Your task to perform on an android device: set the stopwatch Image 0: 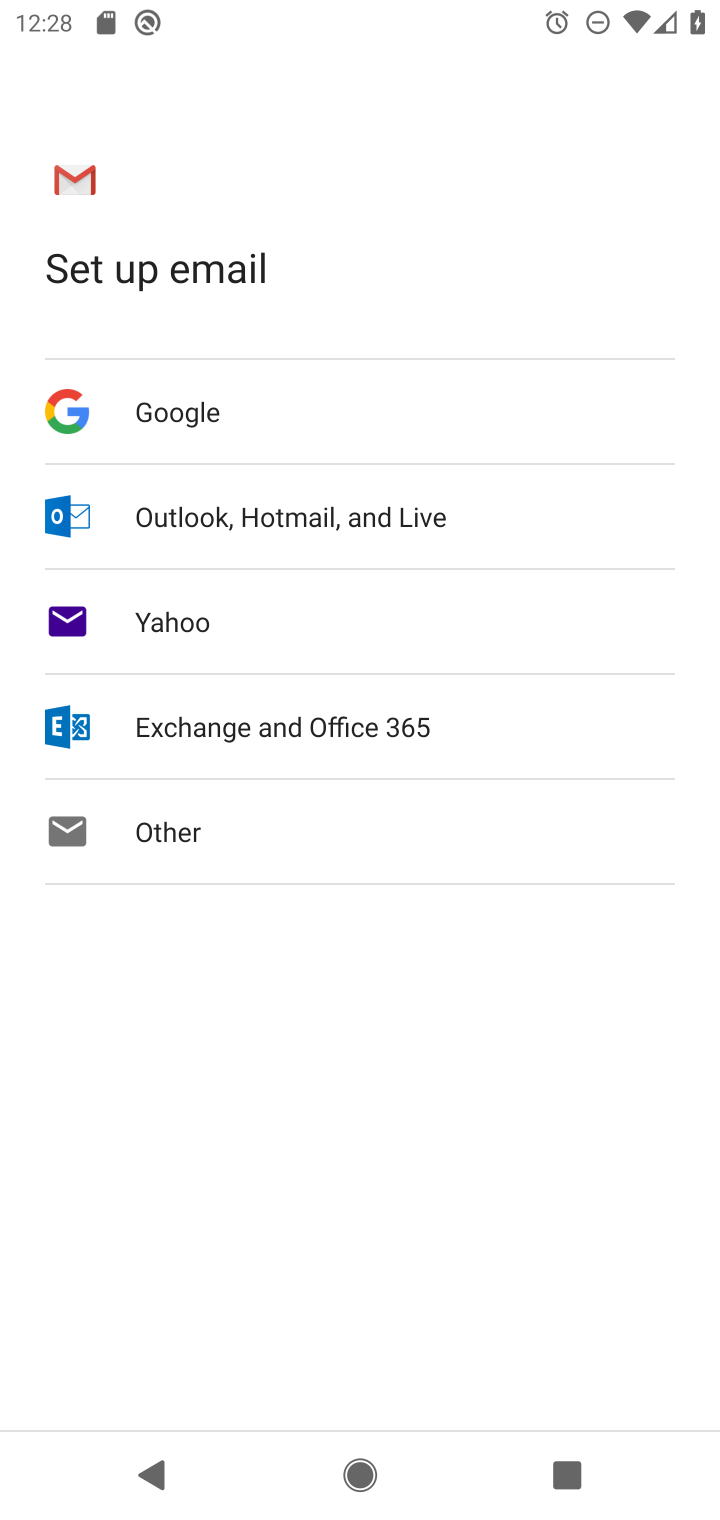
Step 0: press home button
Your task to perform on an android device: set the stopwatch Image 1: 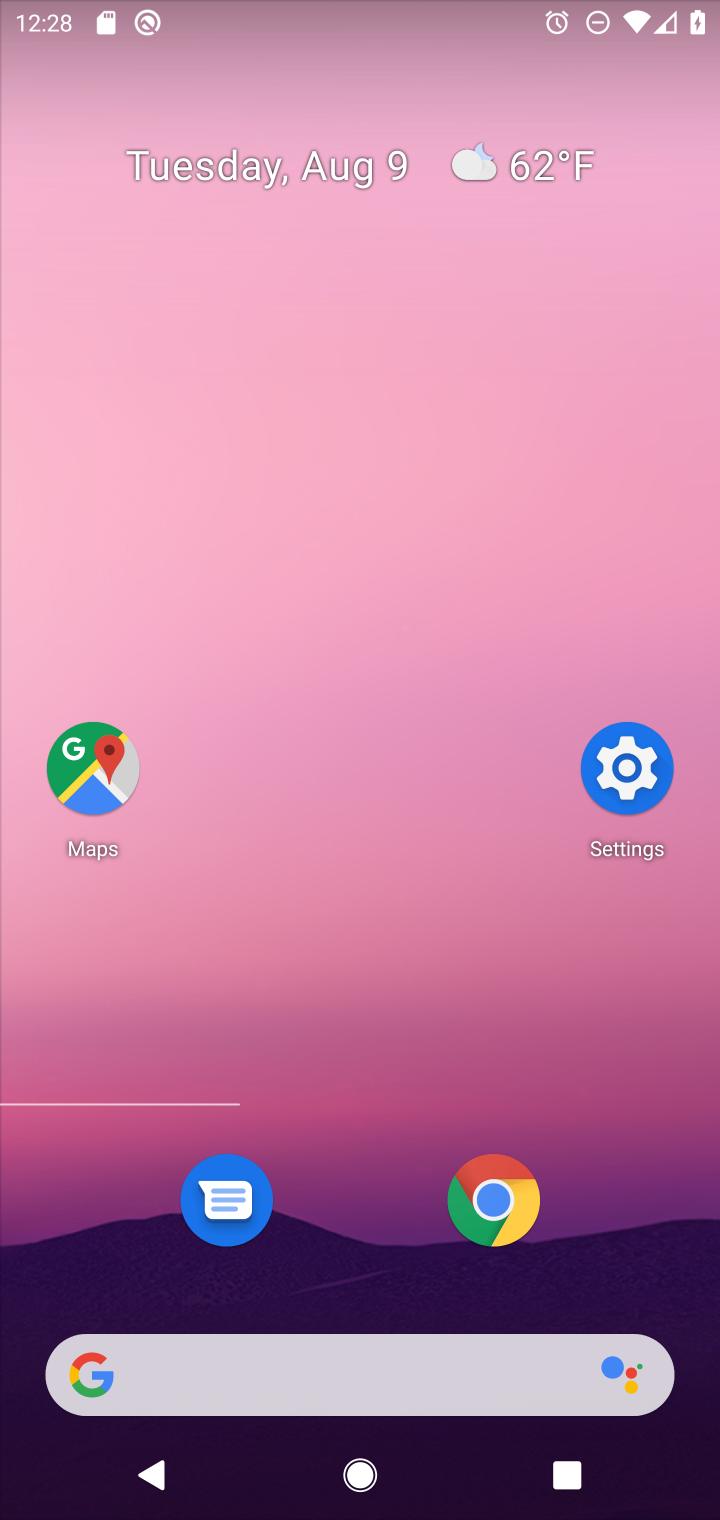
Step 1: drag from (299, 1149) to (521, 212)
Your task to perform on an android device: set the stopwatch Image 2: 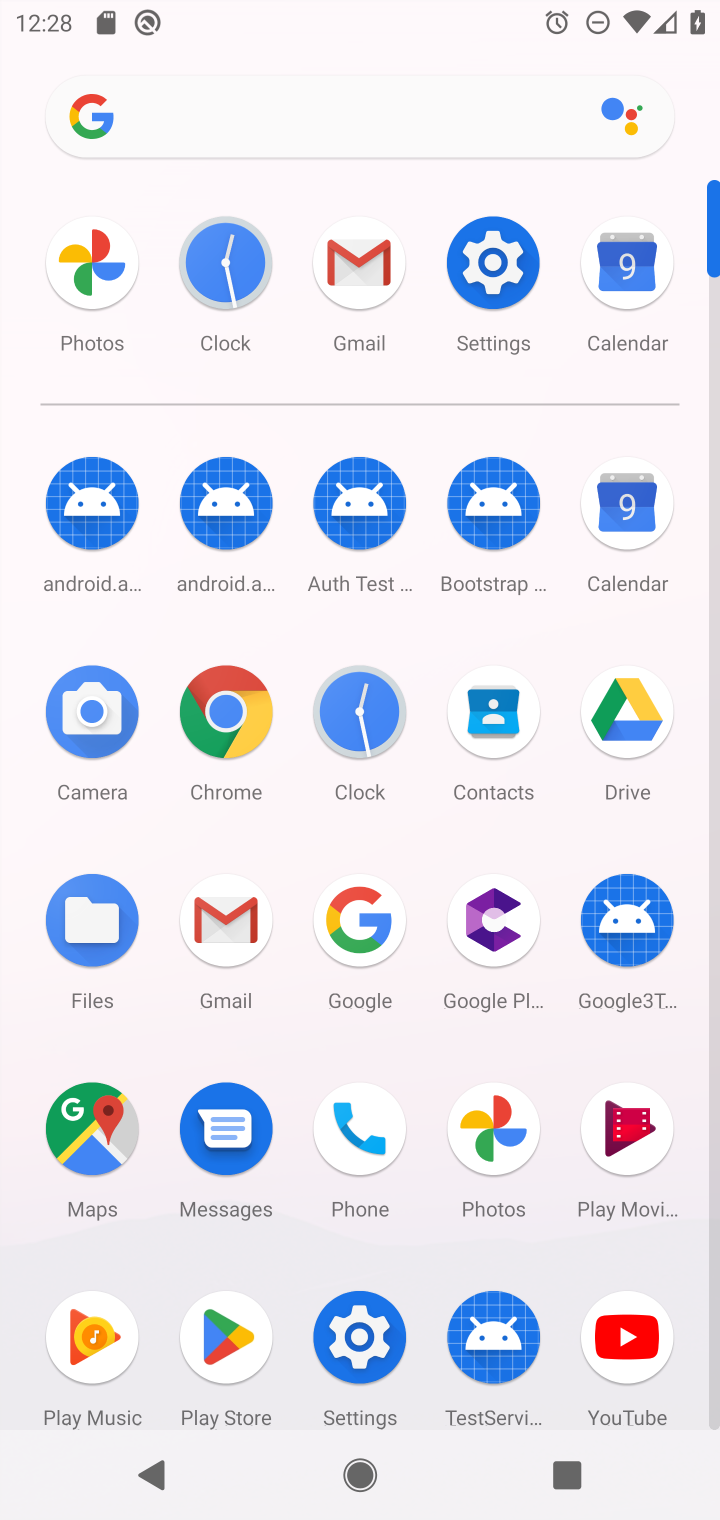
Step 2: click (210, 281)
Your task to perform on an android device: set the stopwatch Image 3: 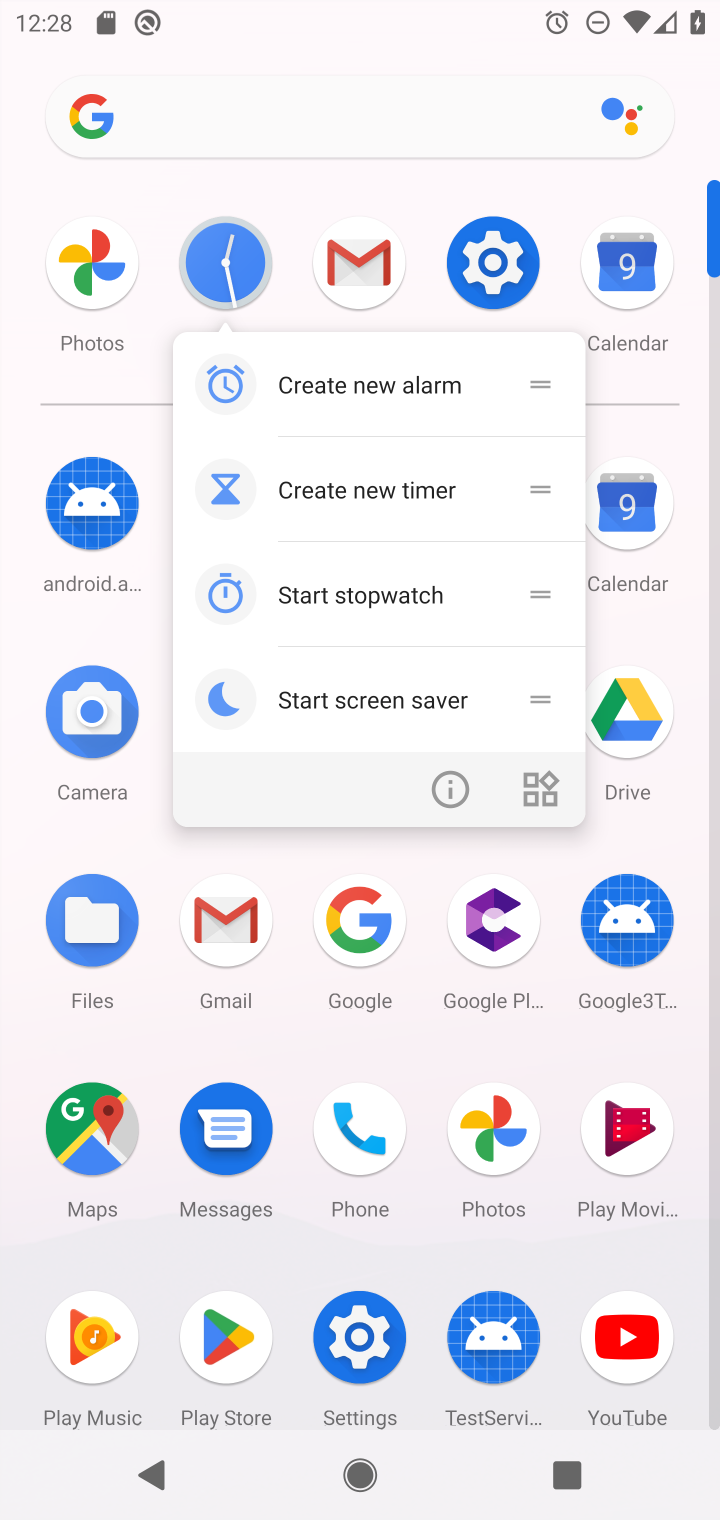
Step 3: click (232, 255)
Your task to perform on an android device: set the stopwatch Image 4: 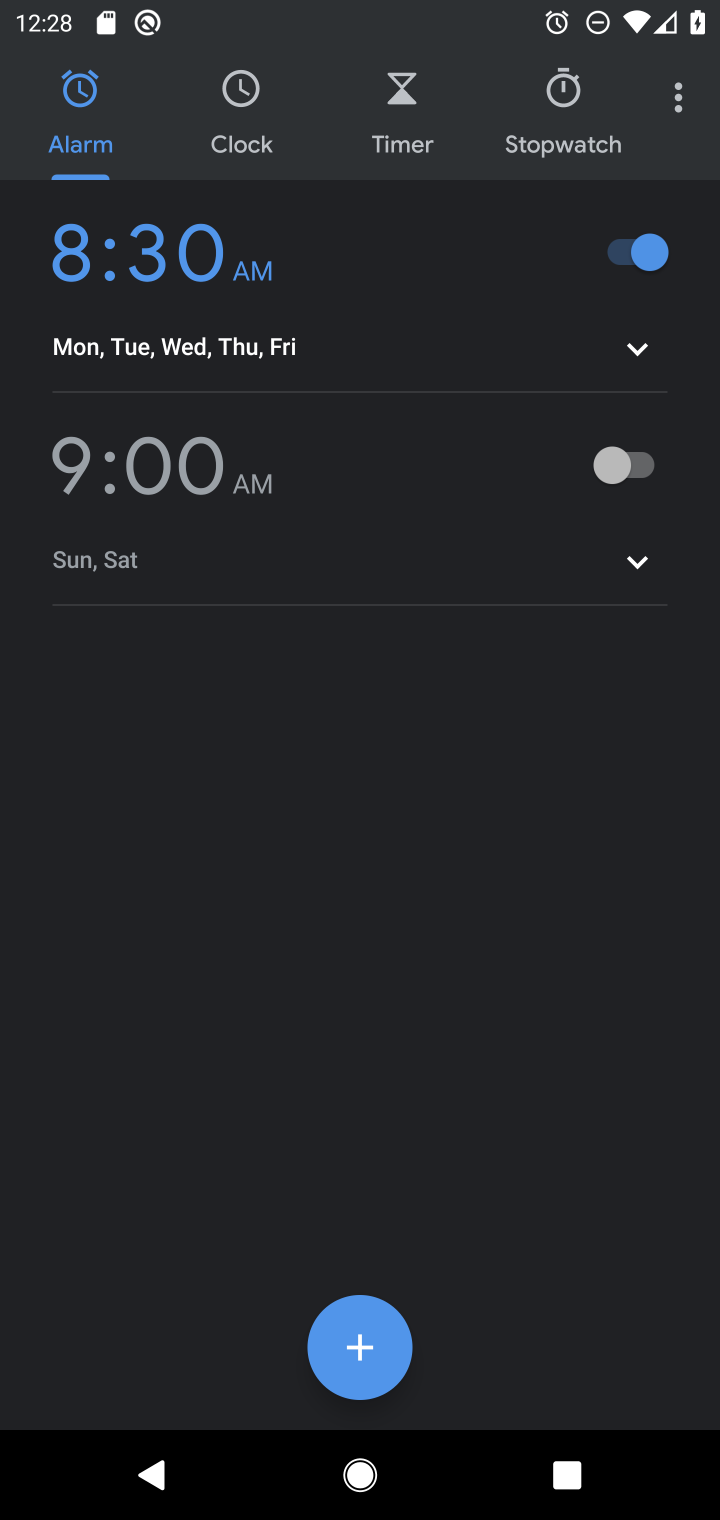
Step 4: click (559, 136)
Your task to perform on an android device: set the stopwatch Image 5: 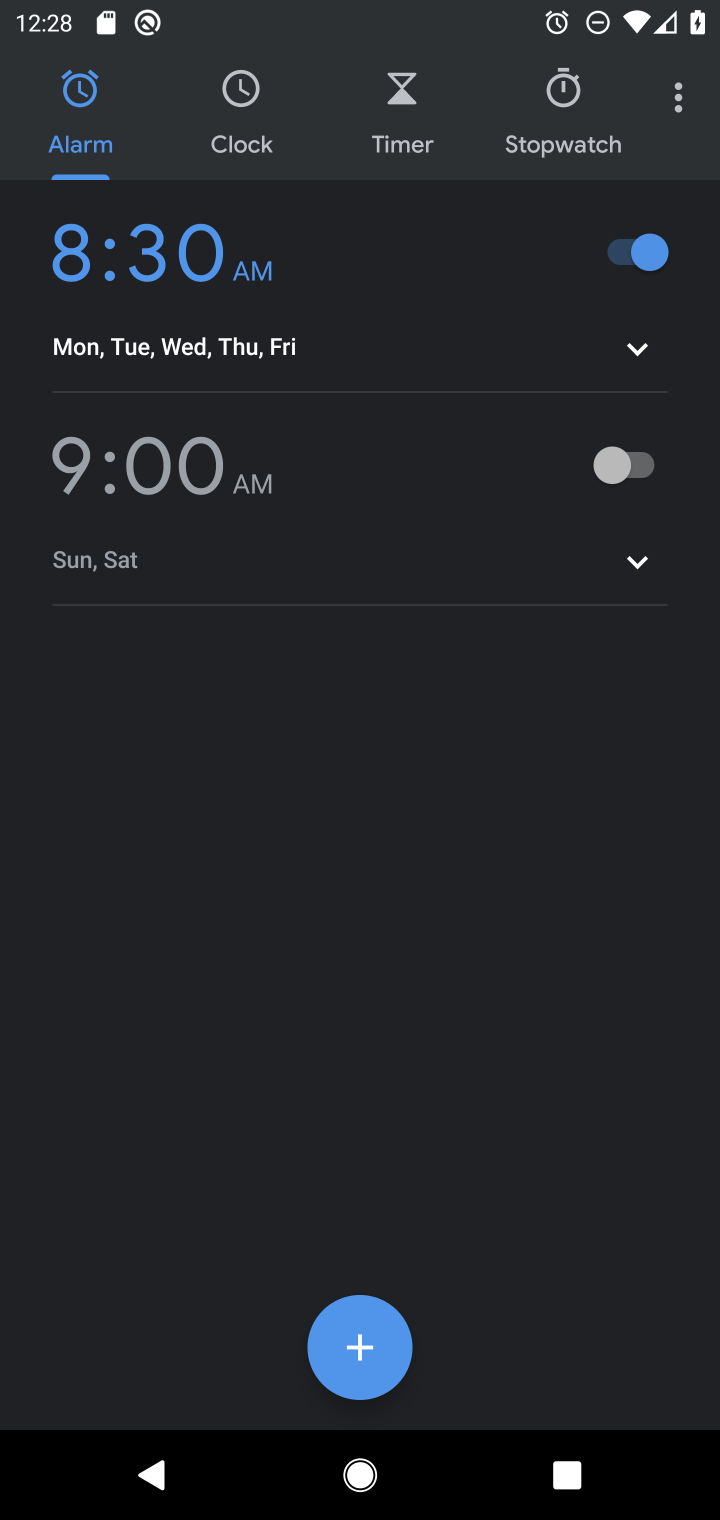
Step 5: click (570, 149)
Your task to perform on an android device: set the stopwatch Image 6: 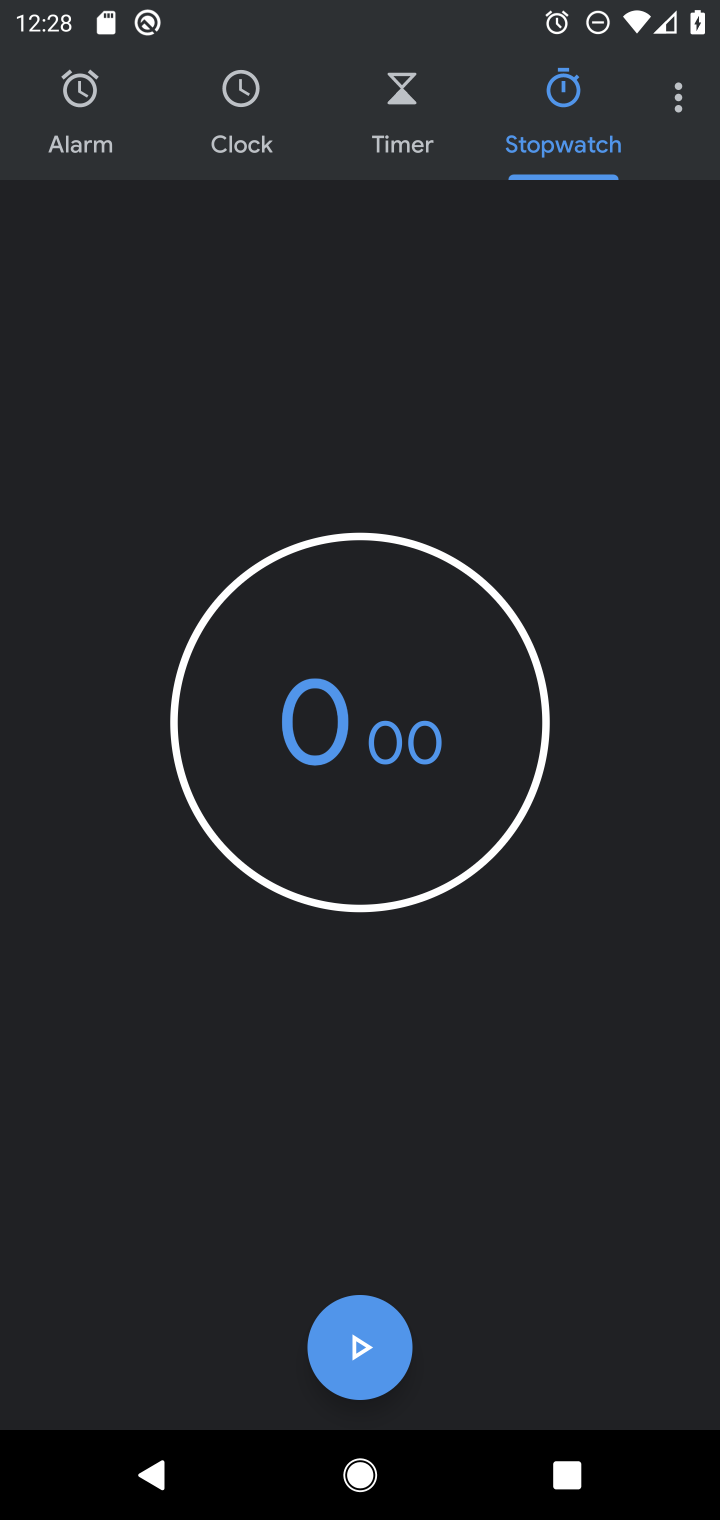
Step 6: click (346, 771)
Your task to perform on an android device: set the stopwatch Image 7: 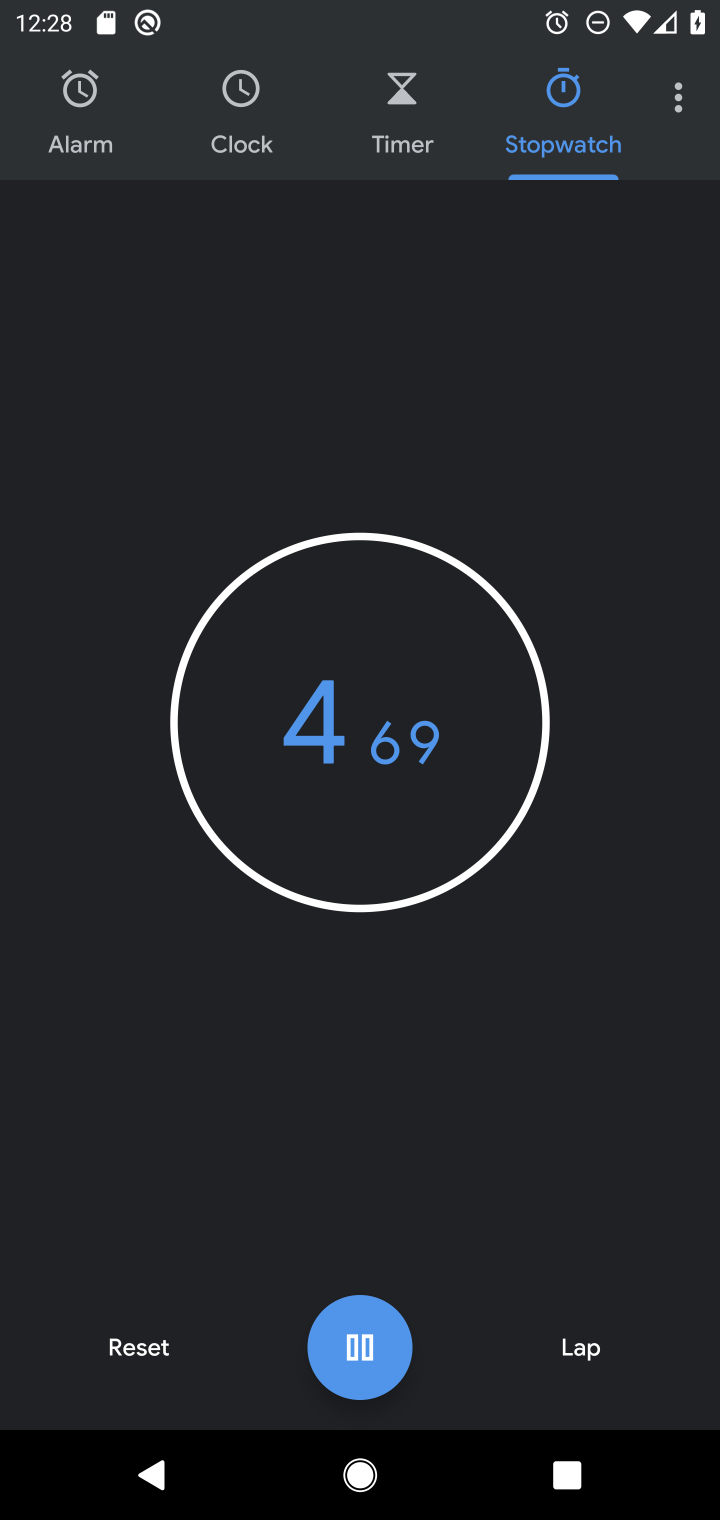
Step 7: click (369, 729)
Your task to perform on an android device: set the stopwatch Image 8: 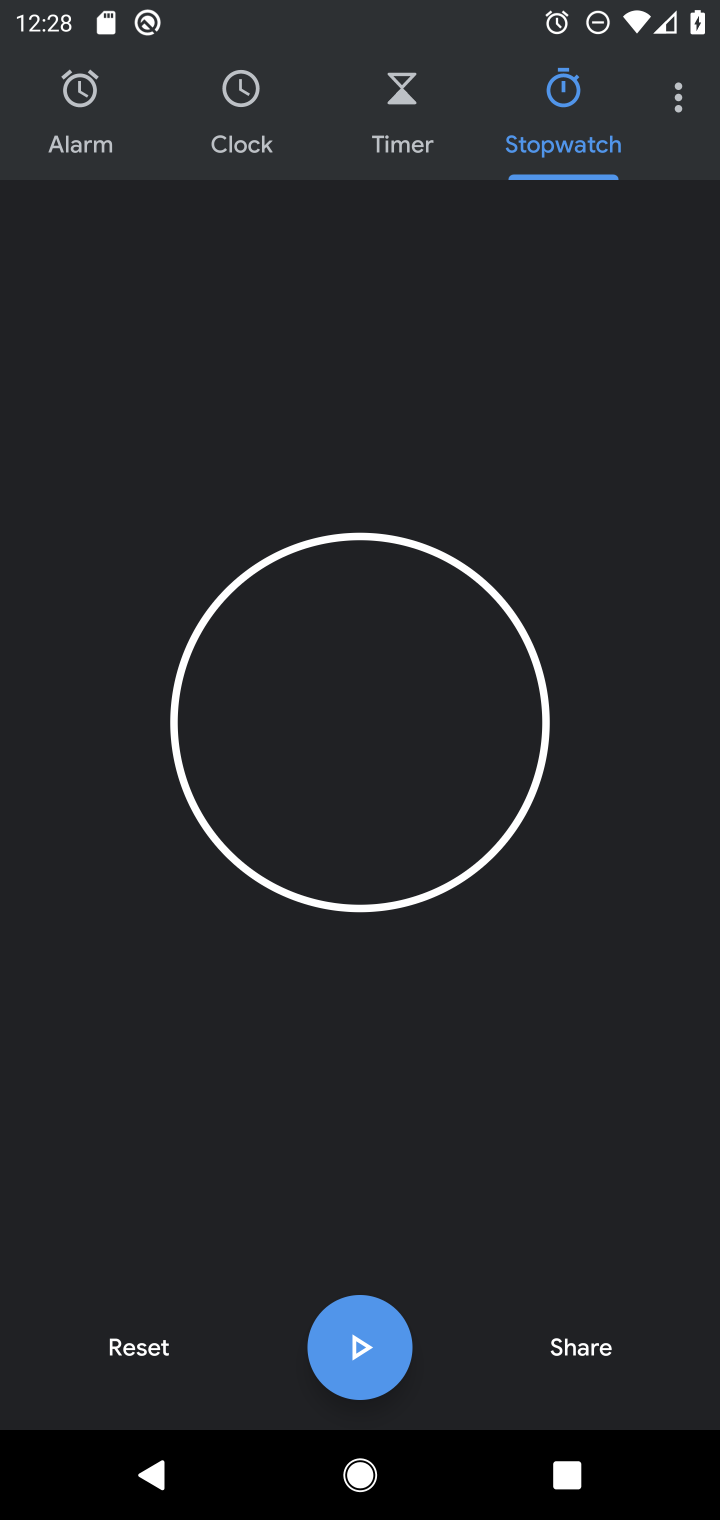
Step 8: task complete